Your task to perform on an android device: Open Wikipedia Image 0: 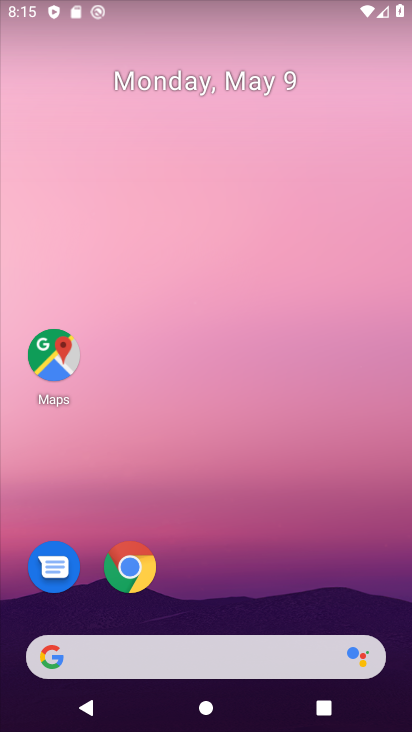
Step 0: drag from (310, 531) to (278, 138)
Your task to perform on an android device: Open Wikipedia Image 1: 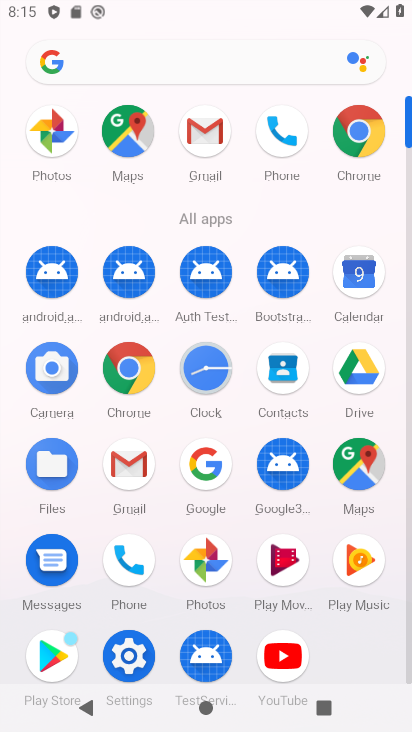
Step 1: click (349, 142)
Your task to perform on an android device: Open Wikipedia Image 2: 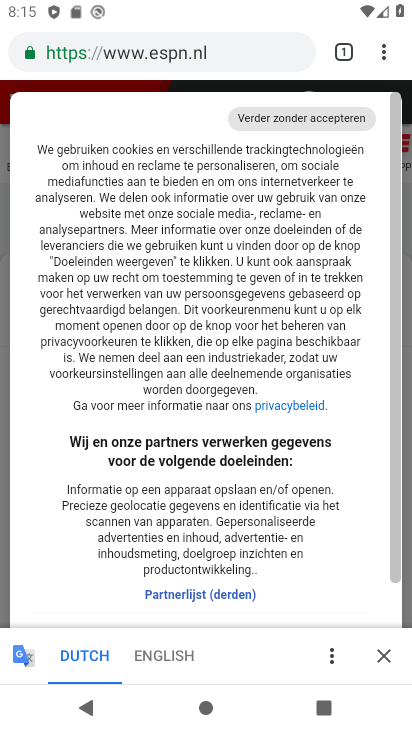
Step 2: click (348, 55)
Your task to perform on an android device: Open Wikipedia Image 3: 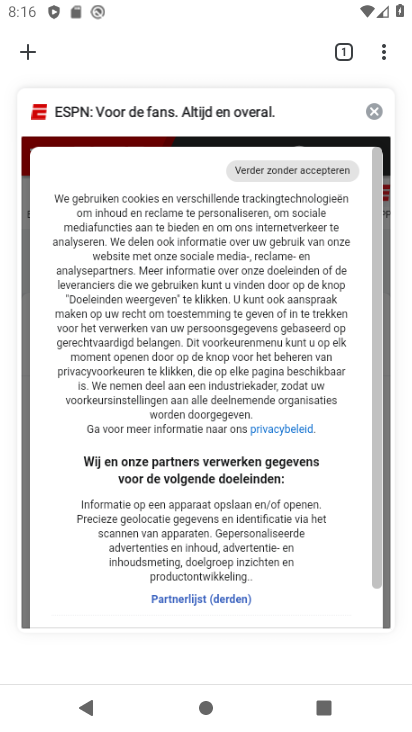
Step 3: click (33, 56)
Your task to perform on an android device: Open Wikipedia Image 4: 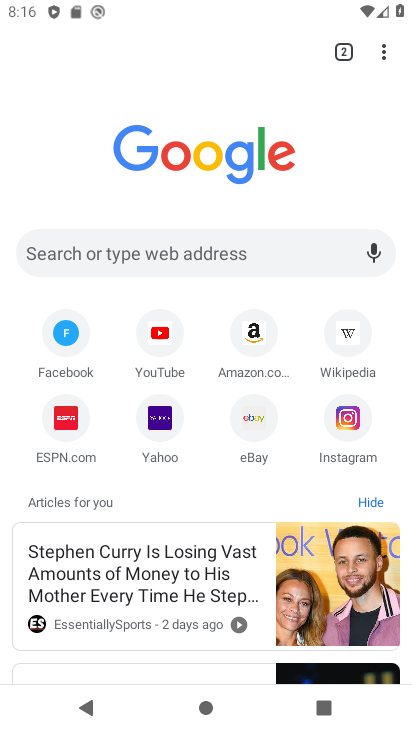
Step 4: click (351, 348)
Your task to perform on an android device: Open Wikipedia Image 5: 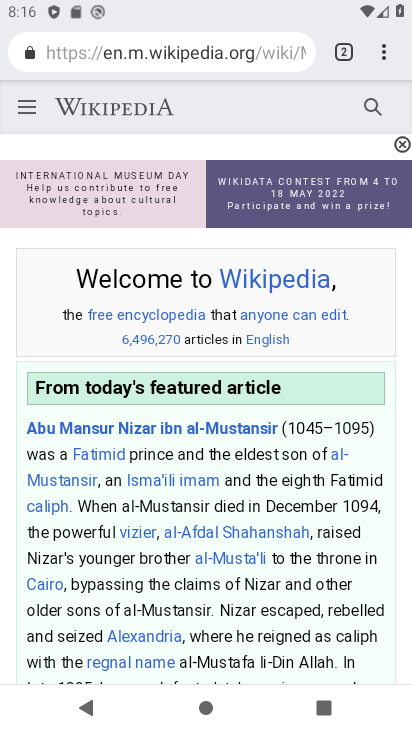
Step 5: task complete